Your task to perform on an android device: turn vacation reply on in the gmail app Image 0: 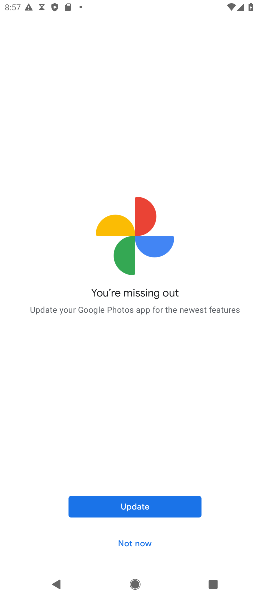
Step 0: press back button
Your task to perform on an android device: turn vacation reply on in the gmail app Image 1: 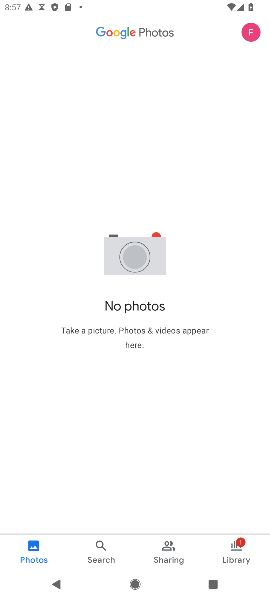
Step 1: press back button
Your task to perform on an android device: turn vacation reply on in the gmail app Image 2: 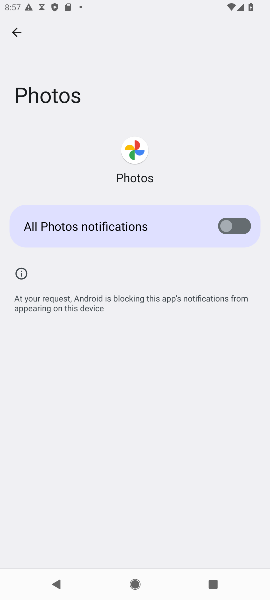
Step 2: press home button
Your task to perform on an android device: turn vacation reply on in the gmail app Image 3: 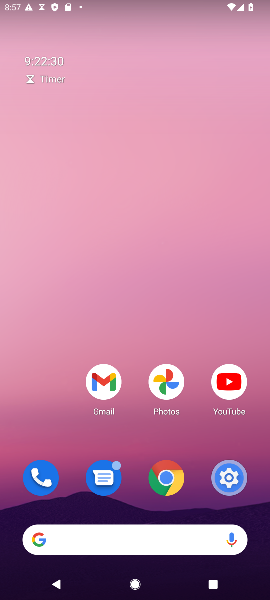
Step 3: drag from (194, 329) to (152, 0)
Your task to perform on an android device: turn vacation reply on in the gmail app Image 4: 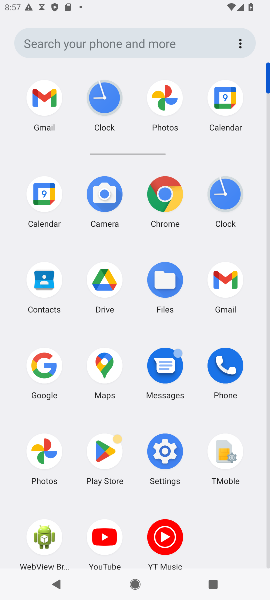
Step 4: click (36, 90)
Your task to perform on an android device: turn vacation reply on in the gmail app Image 5: 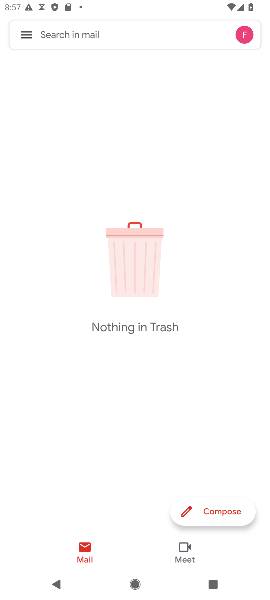
Step 5: click (27, 36)
Your task to perform on an android device: turn vacation reply on in the gmail app Image 6: 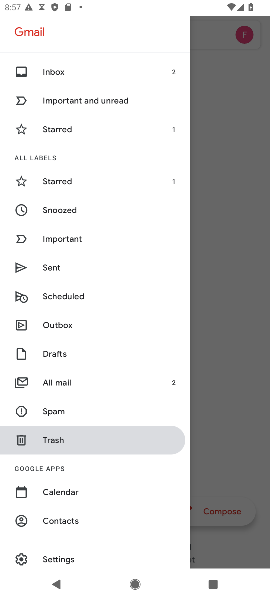
Step 6: click (68, 555)
Your task to perform on an android device: turn vacation reply on in the gmail app Image 7: 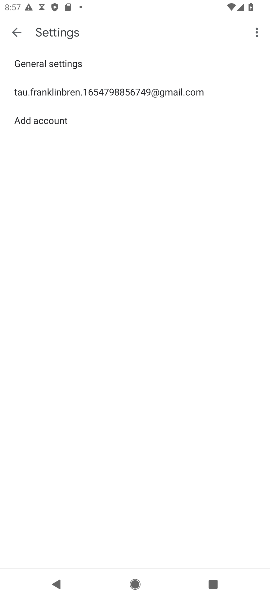
Step 7: click (91, 95)
Your task to perform on an android device: turn vacation reply on in the gmail app Image 8: 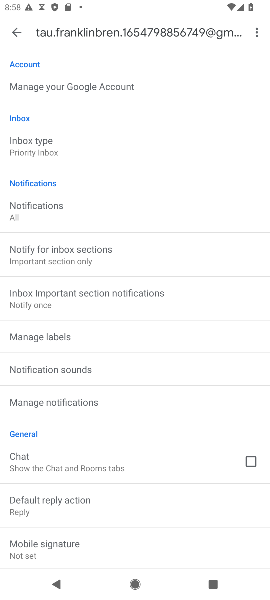
Step 8: drag from (105, 512) to (57, 175)
Your task to perform on an android device: turn vacation reply on in the gmail app Image 9: 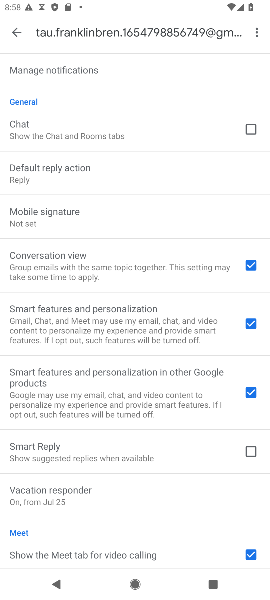
Step 9: click (71, 484)
Your task to perform on an android device: turn vacation reply on in the gmail app Image 10: 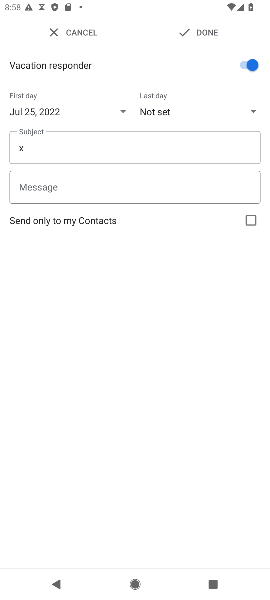
Step 10: click (157, 136)
Your task to perform on an android device: turn vacation reply on in the gmail app Image 11: 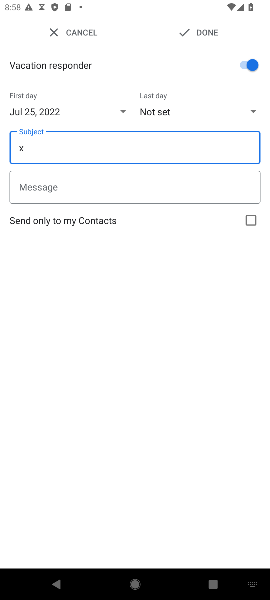
Step 11: type "chgcgh"
Your task to perform on an android device: turn vacation reply on in the gmail app Image 12: 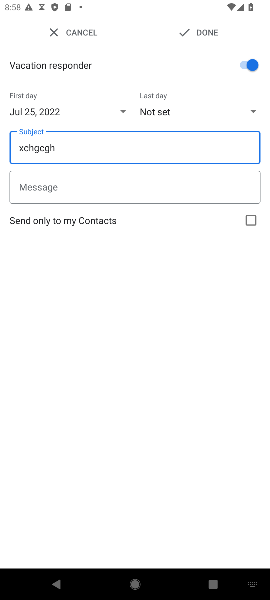
Step 12: click (196, 35)
Your task to perform on an android device: turn vacation reply on in the gmail app Image 13: 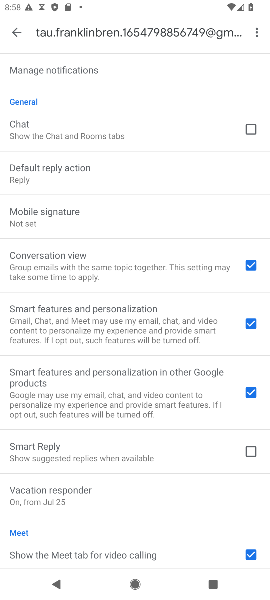
Step 13: task complete